Your task to perform on an android device: turn on bluetooth scan Image 0: 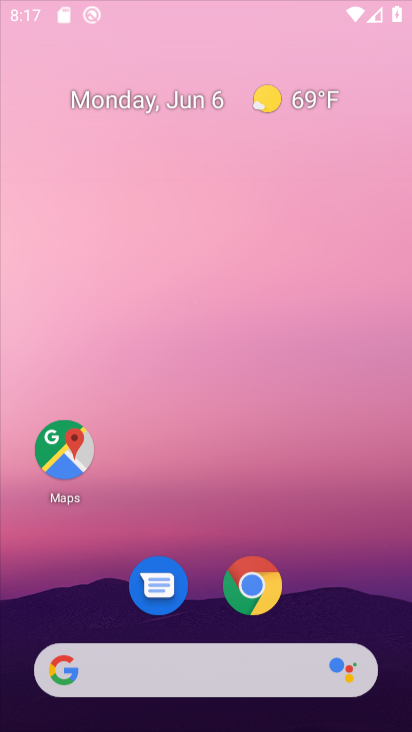
Step 0: click (378, 49)
Your task to perform on an android device: turn on bluetooth scan Image 1: 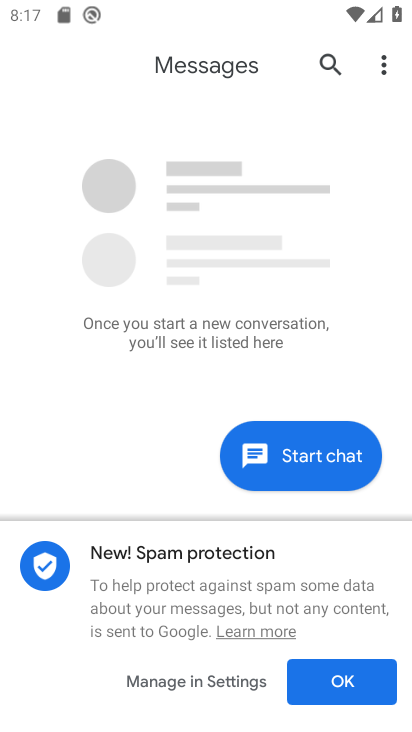
Step 1: press home button
Your task to perform on an android device: turn on bluetooth scan Image 2: 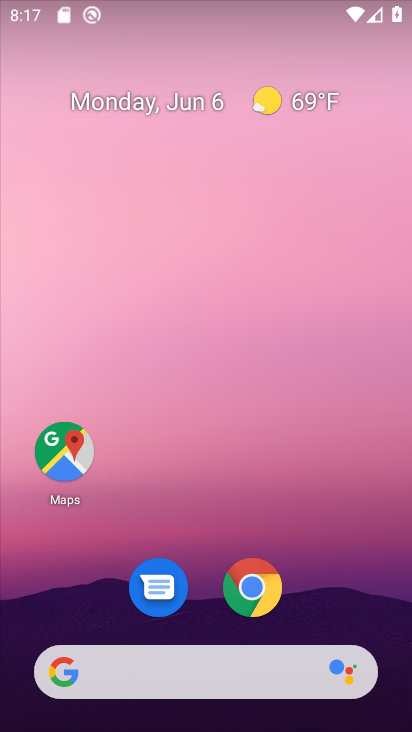
Step 2: drag from (359, 601) to (348, 122)
Your task to perform on an android device: turn on bluetooth scan Image 3: 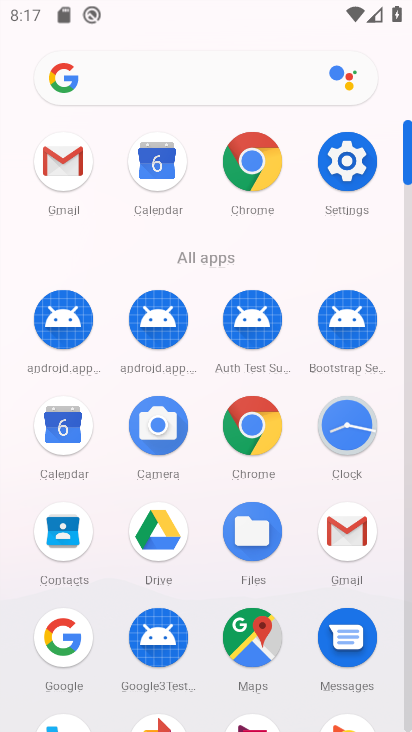
Step 3: click (349, 155)
Your task to perform on an android device: turn on bluetooth scan Image 4: 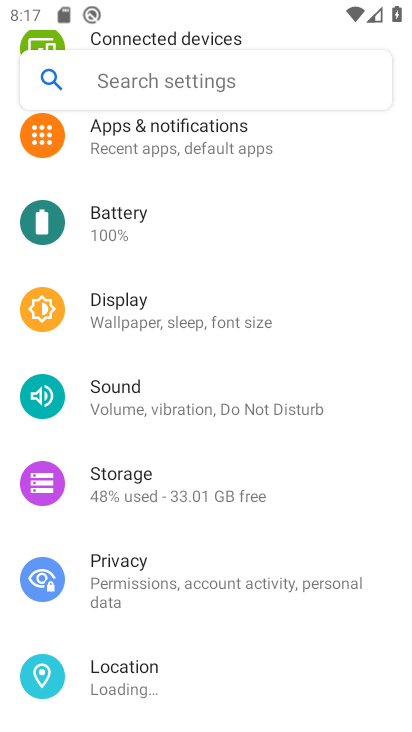
Step 4: click (227, 153)
Your task to perform on an android device: turn on bluetooth scan Image 5: 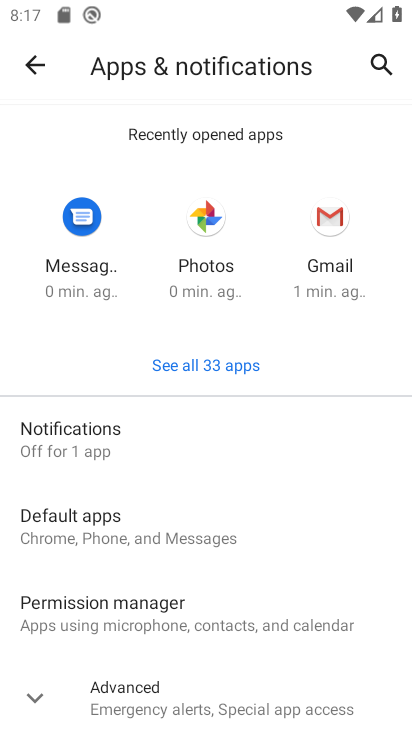
Step 5: click (37, 66)
Your task to perform on an android device: turn on bluetooth scan Image 6: 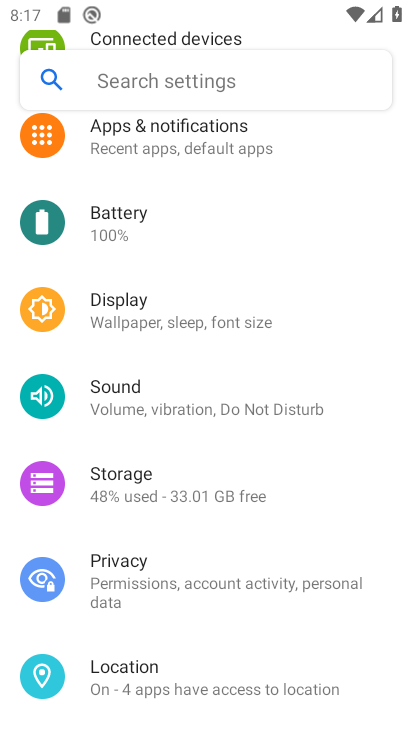
Step 6: drag from (249, 627) to (238, 122)
Your task to perform on an android device: turn on bluetooth scan Image 7: 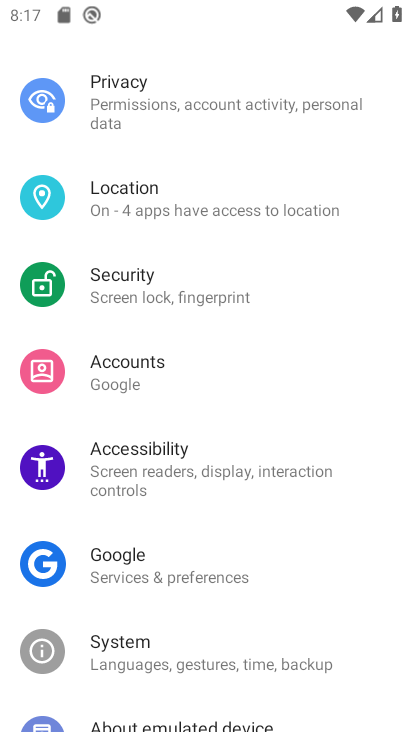
Step 7: click (238, 205)
Your task to perform on an android device: turn on bluetooth scan Image 8: 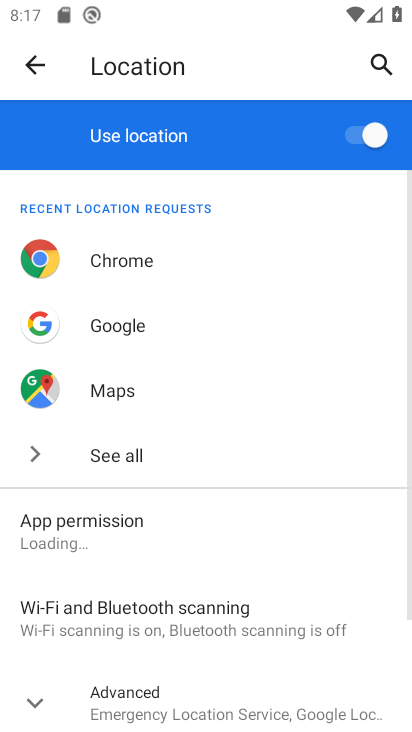
Step 8: click (246, 638)
Your task to perform on an android device: turn on bluetooth scan Image 9: 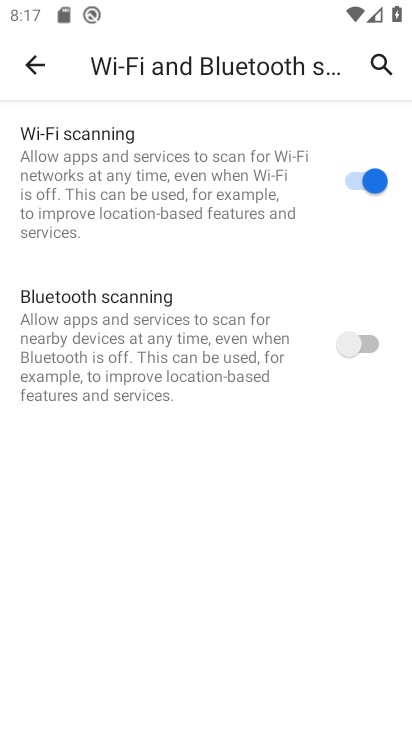
Step 9: click (370, 344)
Your task to perform on an android device: turn on bluetooth scan Image 10: 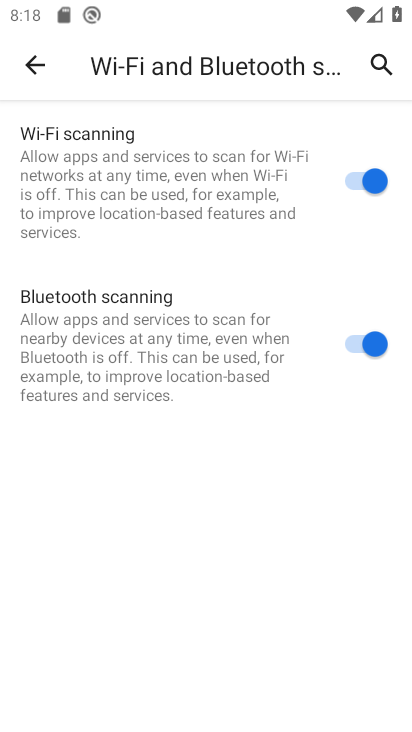
Step 10: task complete